Your task to perform on an android device: Do I have any events today? Image 0: 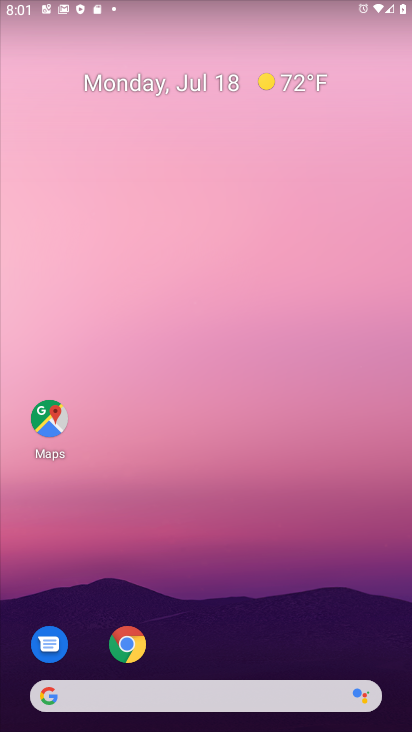
Step 0: drag from (362, 674) to (272, 100)
Your task to perform on an android device: Do I have any events today? Image 1: 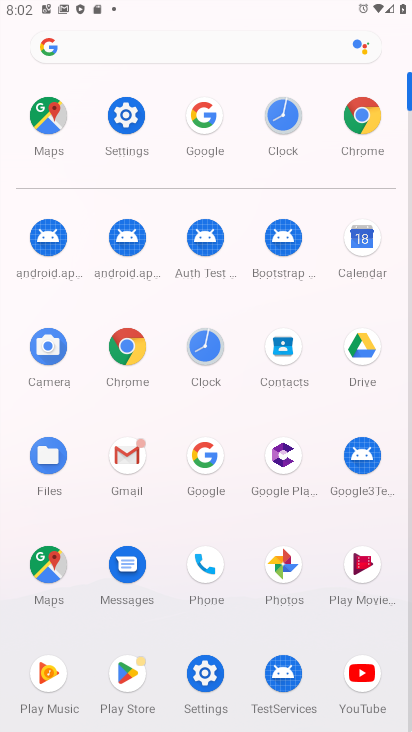
Step 1: click (358, 268)
Your task to perform on an android device: Do I have any events today? Image 2: 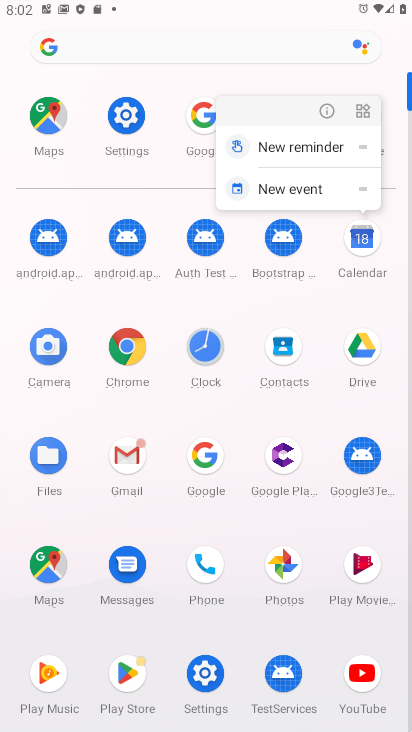
Step 2: click (358, 246)
Your task to perform on an android device: Do I have any events today? Image 3: 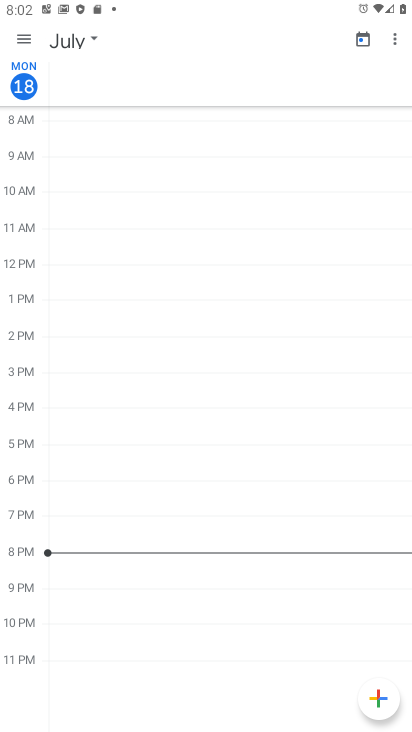
Step 3: task complete